Your task to perform on an android device: Open calendar and show me the first week of next month Image 0: 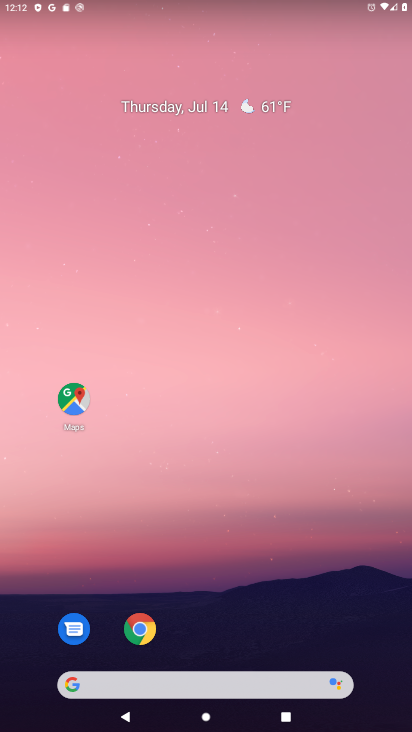
Step 0: drag from (178, 681) to (301, 175)
Your task to perform on an android device: Open calendar and show me the first week of next month Image 1: 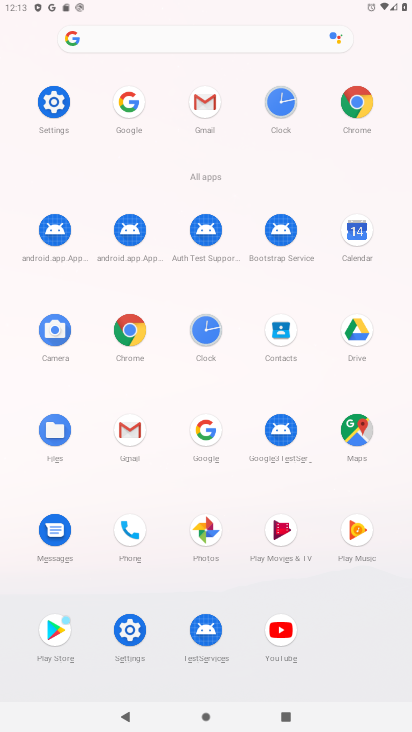
Step 1: click (358, 232)
Your task to perform on an android device: Open calendar and show me the first week of next month Image 2: 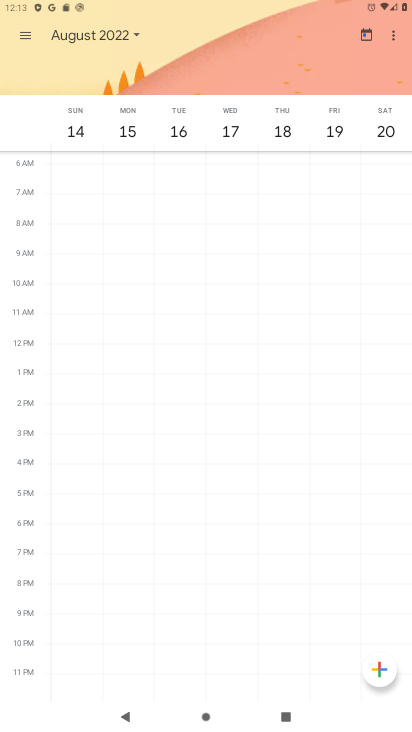
Step 2: click (370, 38)
Your task to perform on an android device: Open calendar and show me the first week of next month Image 3: 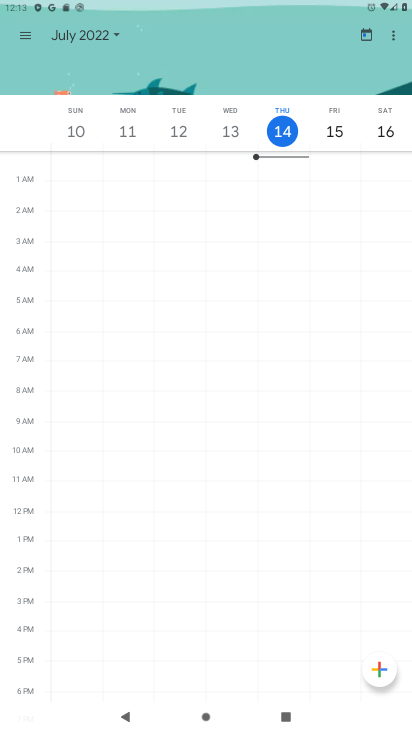
Step 3: click (115, 32)
Your task to perform on an android device: Open calendar and show me the first week of next month Image 4: 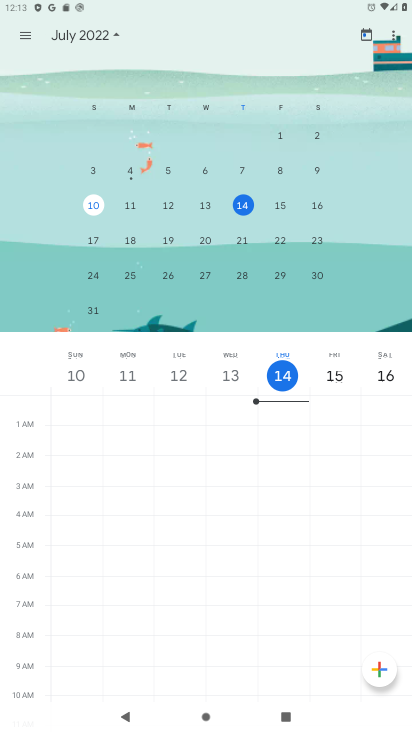
Step 4: drag from (349, 222) to (3, 278)
Your task to perform on an android device: Open calendar and show me the first week of next month Image 5: 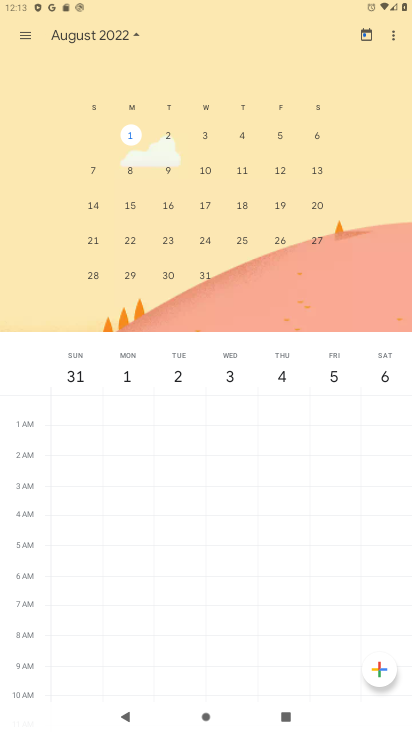
Step 5: click (133, 134)
Your task to perform on an android device: Open calendar and show me the first week of next month Image 6: 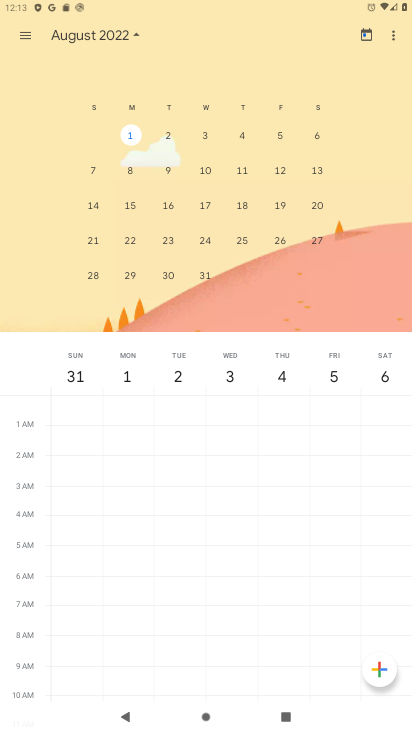
Step 6: click (22, 39)
Your task to perform on an android device: Open calendar and show me the first week of next month Image 7: 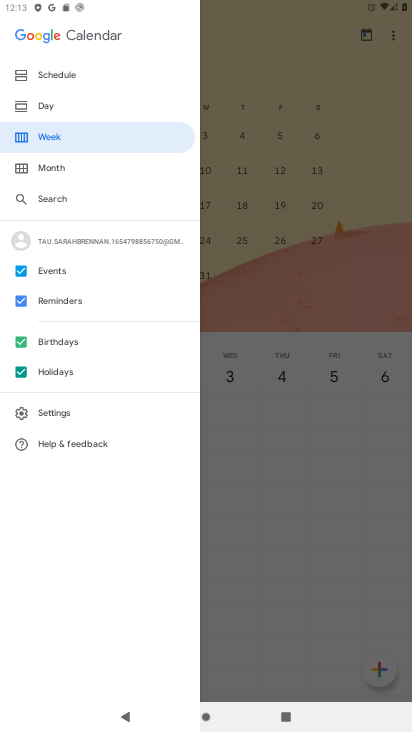
Step 7: click (61, 136)
Your task to perform on an android device: Open calendar and show me the first week of next month Image 8: 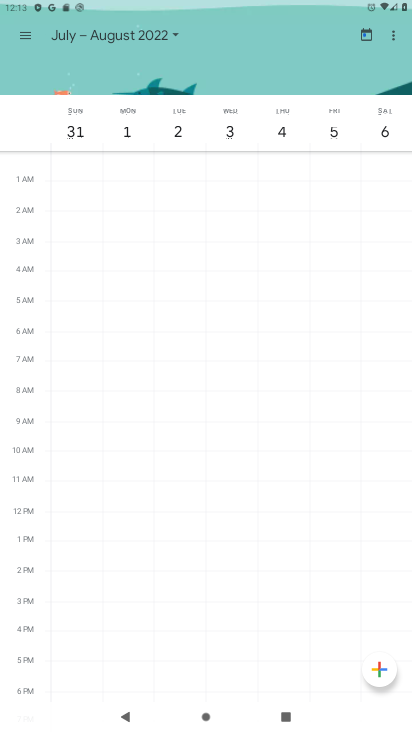
Step 8: task complete